Your task to perform on an android device: Show me popular games on the Play Store Image 0: 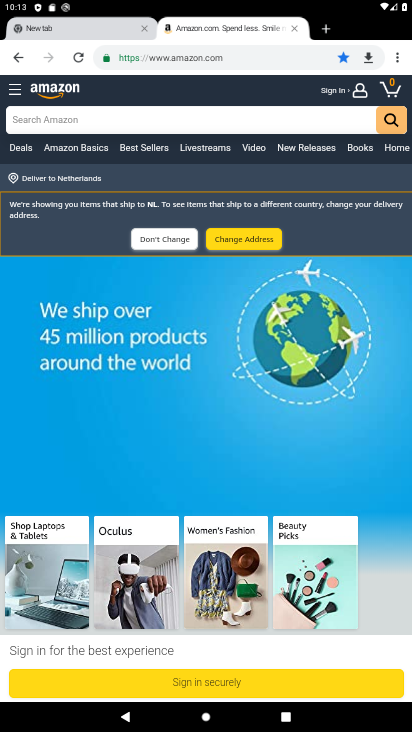
Step 0: task complete